Your task to perform on an android device: open the mobile data screen to see how much data has been used Image 0: 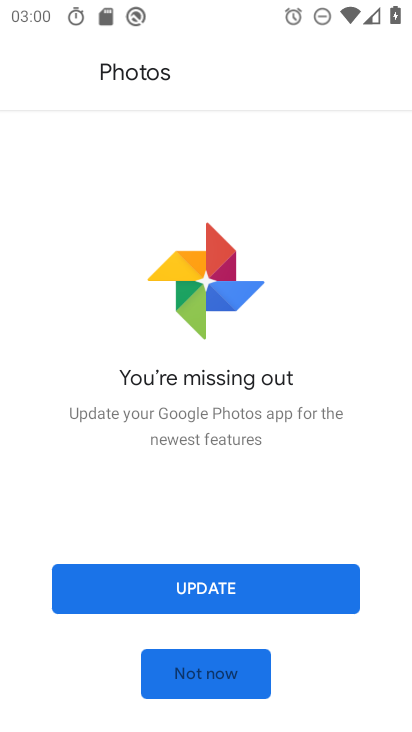
Step 0: press home button
Your task to perform on an android device: open the mobile data screen to see how much data has been used Image 1: 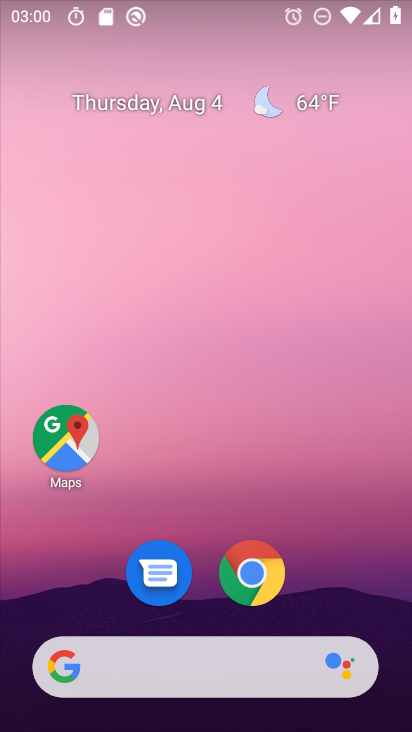
Step 1: drag from (368, 642) to (319, 172)
Your task to perform on an android device: open the mobile data screen to see how much data has been used Image 2: 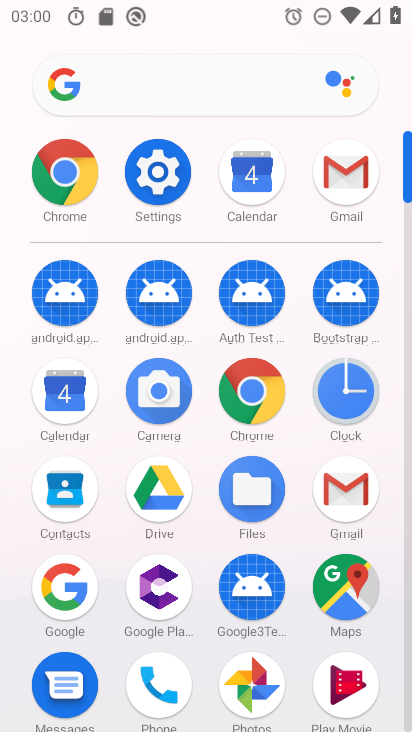
Step 2: click (148, 165)
Your task to perform on an android device: open the mobile data screen to see how much data has been used Image 3: 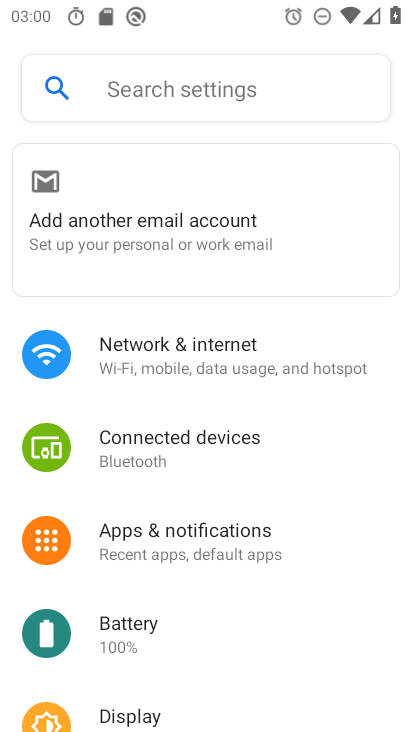
Step 3: click (214, 378)
Your task to perform on an android device: open the mobile data screen to see how much data has been used Image 4: 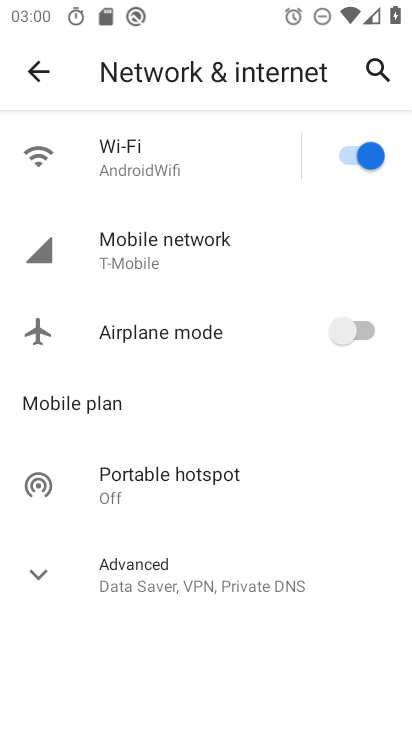
Step 4: click (185, 252)
Your task to perform on an android device: open the mobile data screen to see how much data has been used Image 5: 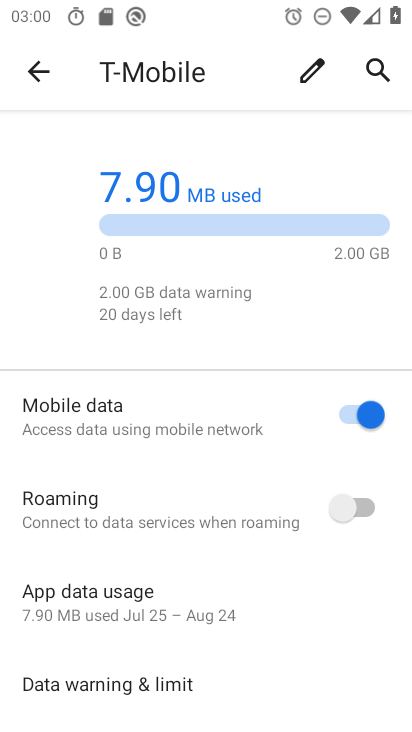
Step 5: task complete